Your task to perform on an android device: toggle javascript in the chrome app Image 0: 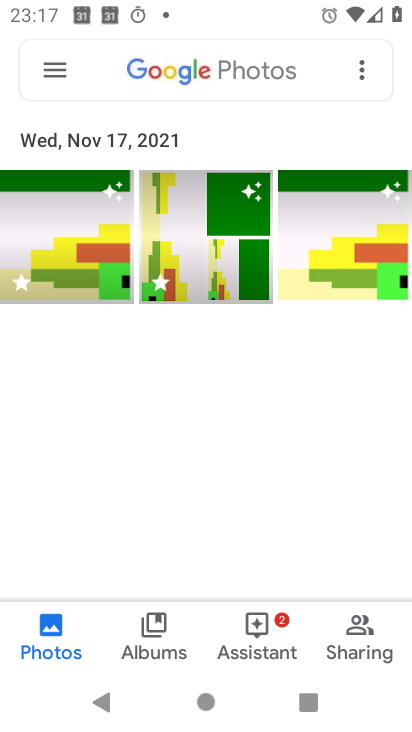
Step 0: press home button
Your task to perform on an android device: toggle javascript in the chrome app Image 1: 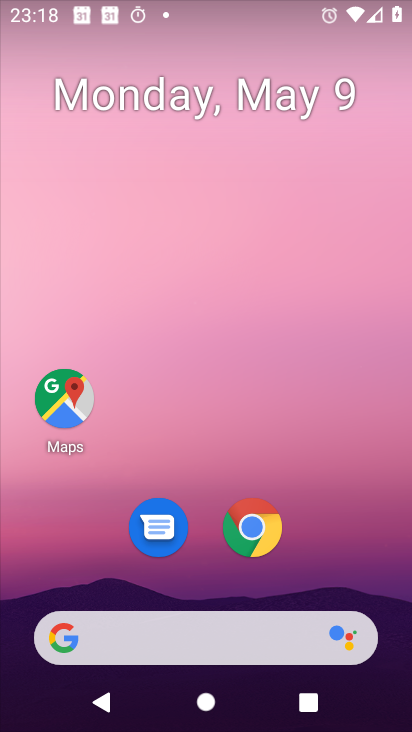
Step 1: click (248, 534)
Your task to perform on an android device: toggle javascript in the chrome app Image 2: 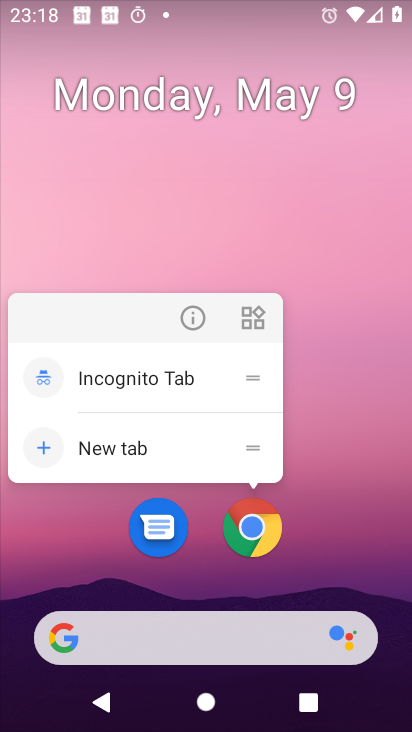
Step 2: click (250, 529)
Your task to perform on an android device: toggle javascript in the chrome app Image 3: 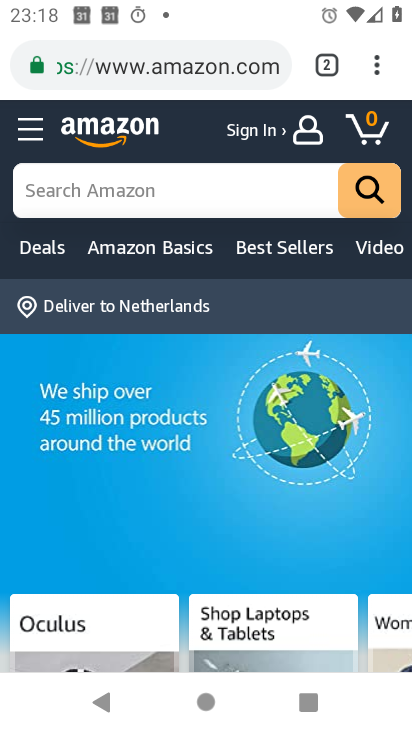
Step 3: click (367, 70)
Your task to perform on an android device: toggle javascript in the chrome app Image 4: 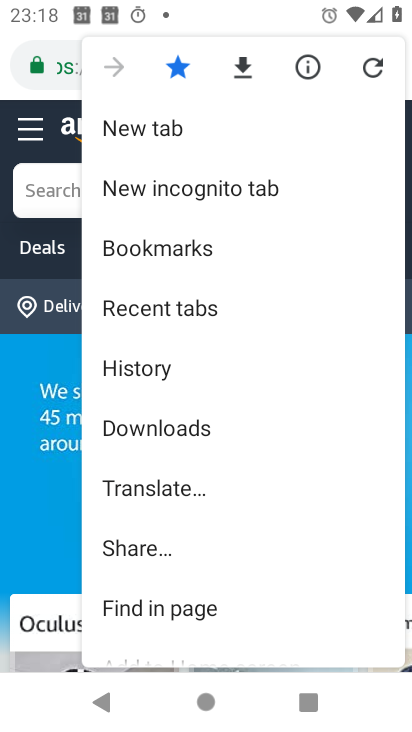
Step 4: drag from (223, 530) to (221, 98)
Your task to perform on an android device: toggle javascript in the chrome app Image 5: 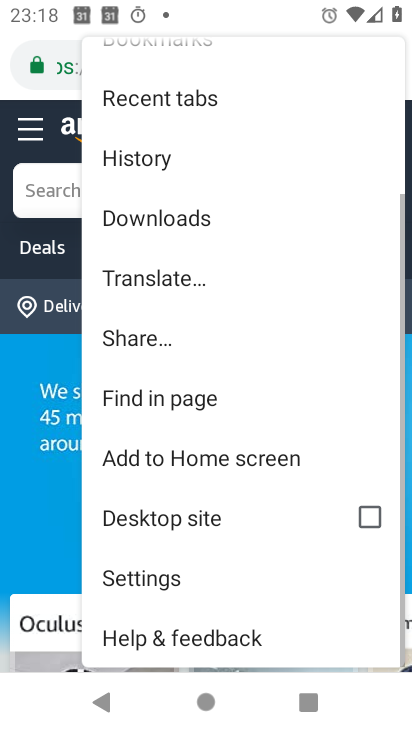
Step 5: click (169, 591)
Your task to perform on an android device: toggle javascript in the chrome app Image 6: 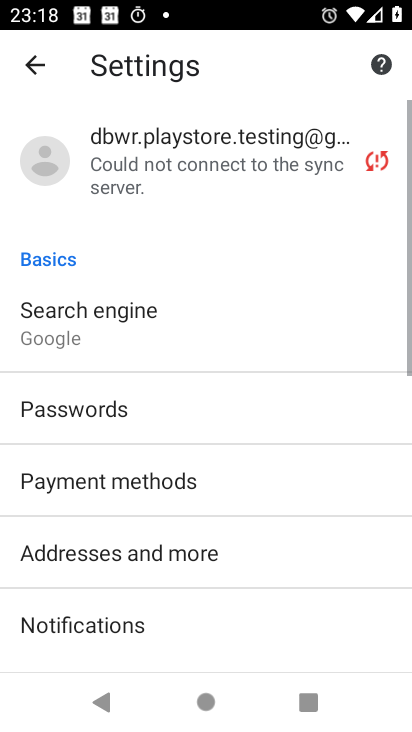
Step 6: drag from (214, 495) to (224, 104)
Your task to perform on an android device: toggle javascript in the chrome app Image 7: 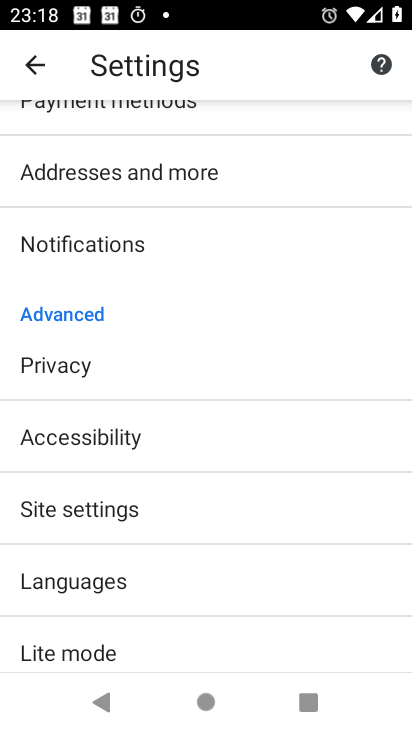
Step 7: click (83, 510)
Your task to perform on an android device: toggle javascript in the chrome app Image 8: 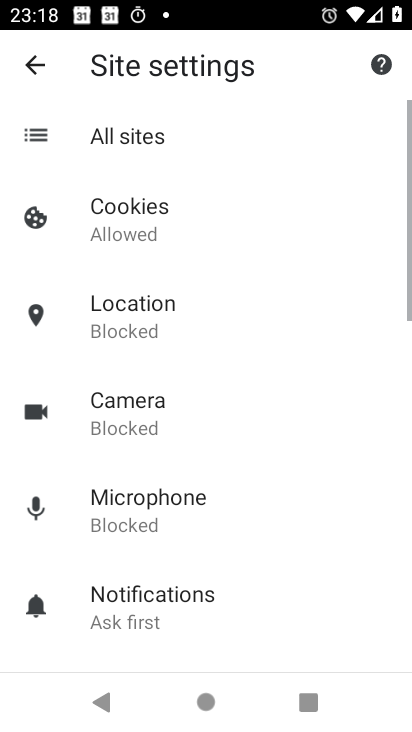
Step 8: drag from (215, 525) to (216, 17)
Your task to perform on an android device: toggle javascript in the chrome app Image 9: 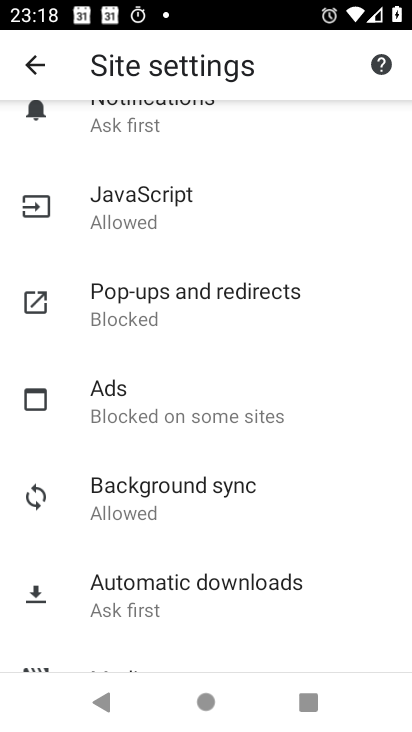
Step 9: click (117, 207)
Your task to perform on an android device: toggle javascript in the chrome app Image 10: 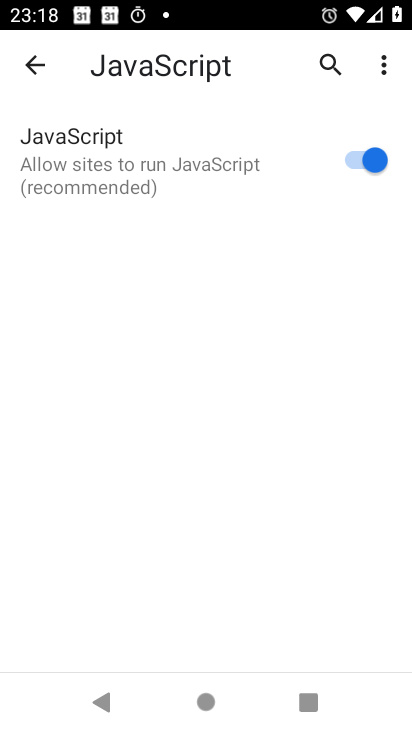
Step 10: click (362, 143)
Your task to perform on an android device: toggle javascript in the chrome app Image 11: 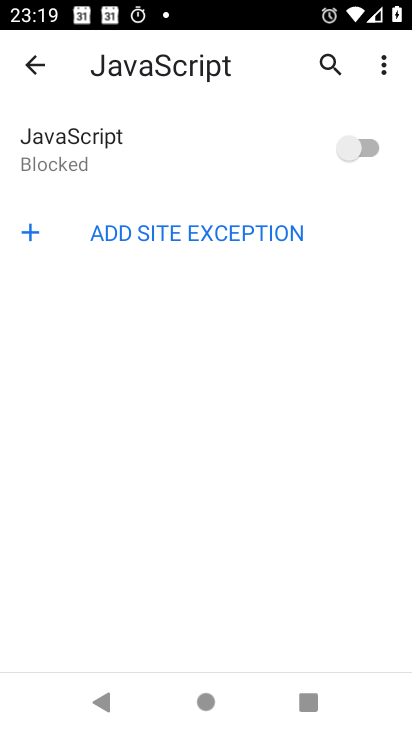
Step 11: task complete